Your task to perform on an android device: When is my next appointment? Image 0: 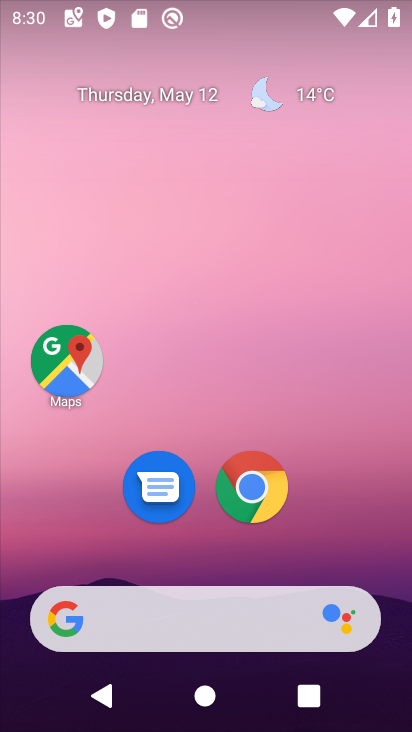
Step 0: drag from (357, 504) to (336, 33)
Your task to perform on an android device: When is my next appointment? Image 1: 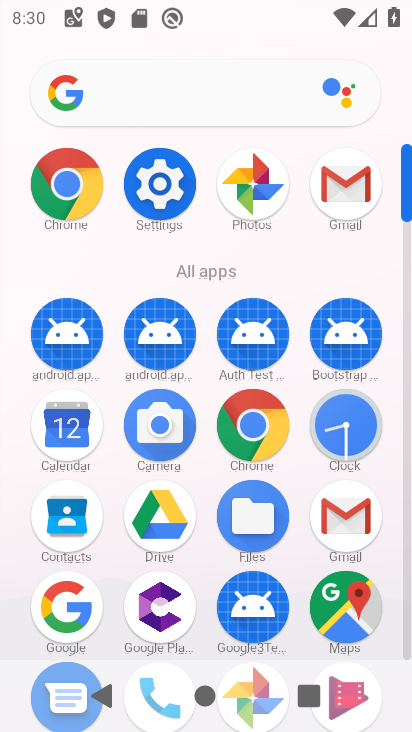
Step 1: click (73, 426)
Your task to perform on an android device: When is my next appointment? Image 2: 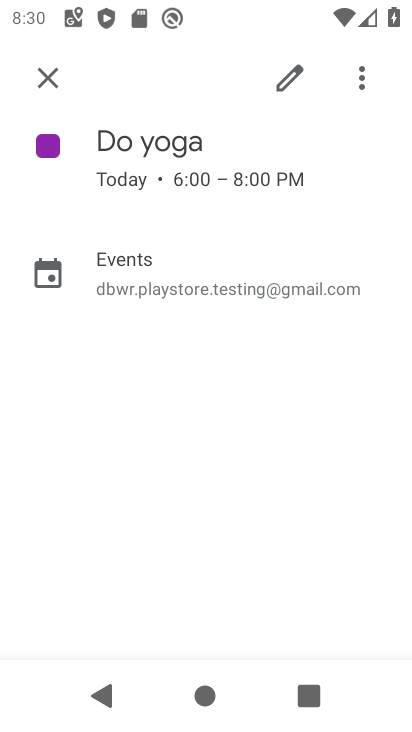
Step 2: click (59, 87)
Your task to perform on an android device: When is my next appointment? Image 3: 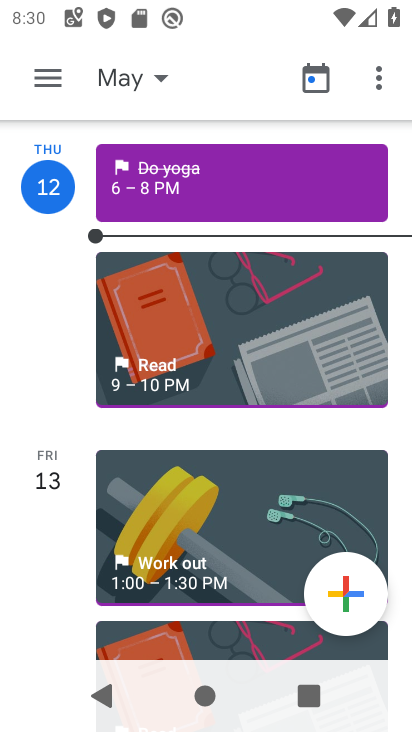
Step 3: drag from (224, 517) to (183, 130)
Your task to perform on an android device: When is my next appointment? Image 4: 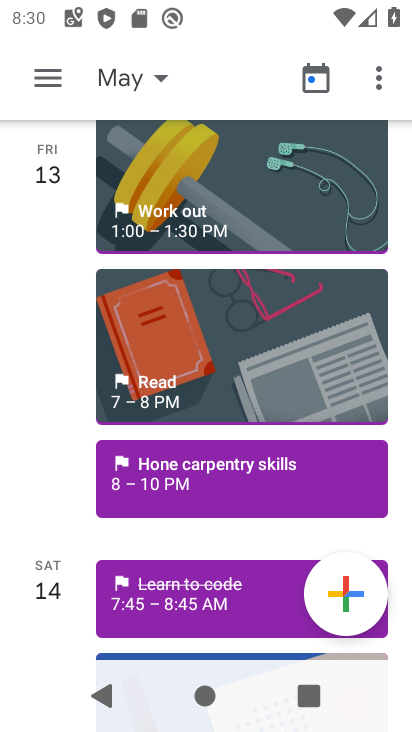
Step 4: click (196, 474)
Your task to perform on an android device: When is my next appointment? Image 5: 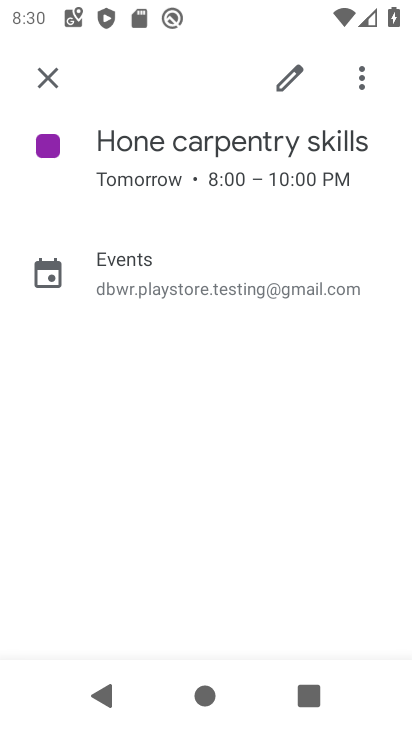
Step 5: task complete